Your task to perform on an android device: Go to Wikipedia Image 0: 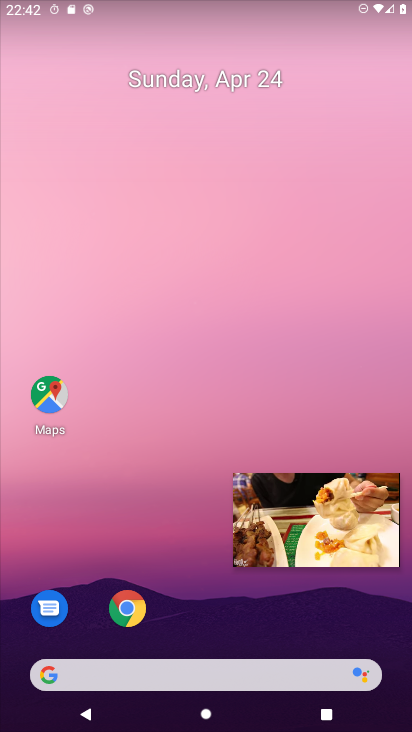
Step 0: press home button
Your task to perform on an android device: Go to Wikipedia Image 1: 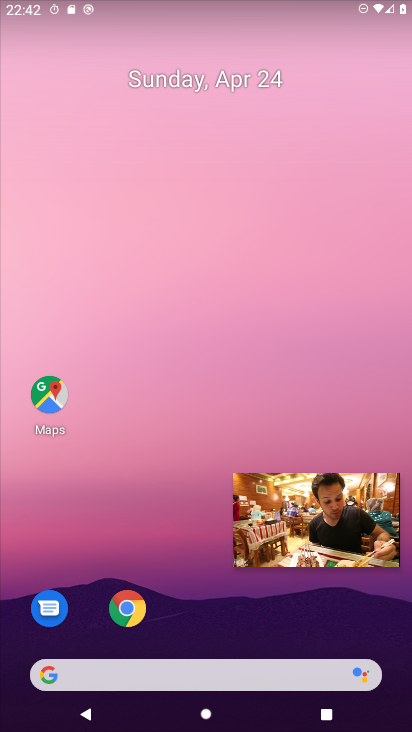
Step 1: click (137, 605)
Your task to perform on an android device: Go to Wikipedia Image 2: 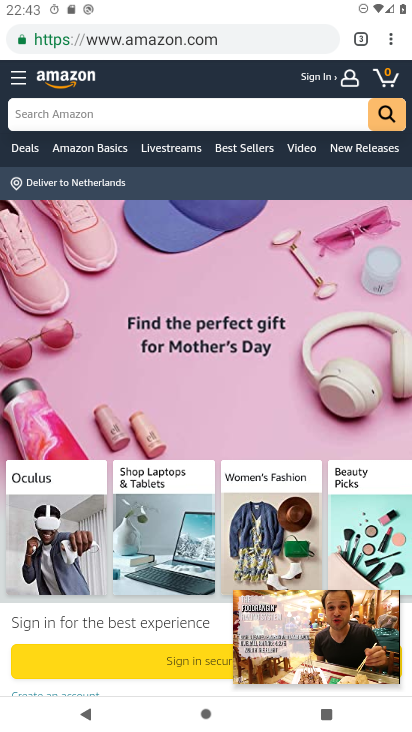
Step 2: click (389, 39)
Your task to perform on an android device: Go to Wikipedia Image 3: 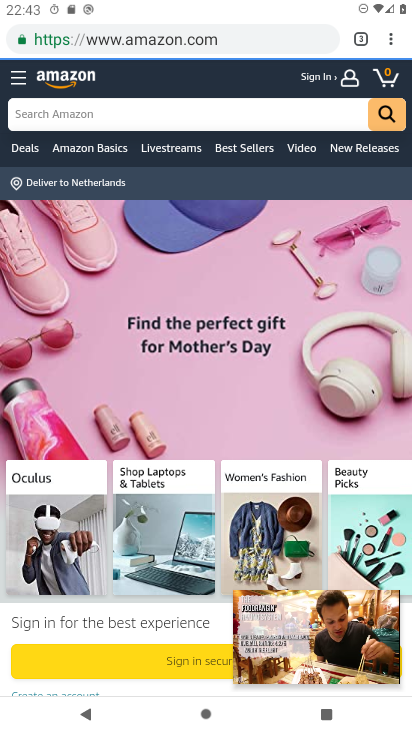
Step 3: click (389, 39)
Your task to perform on an android device: Go to Wikipedia Image 4: 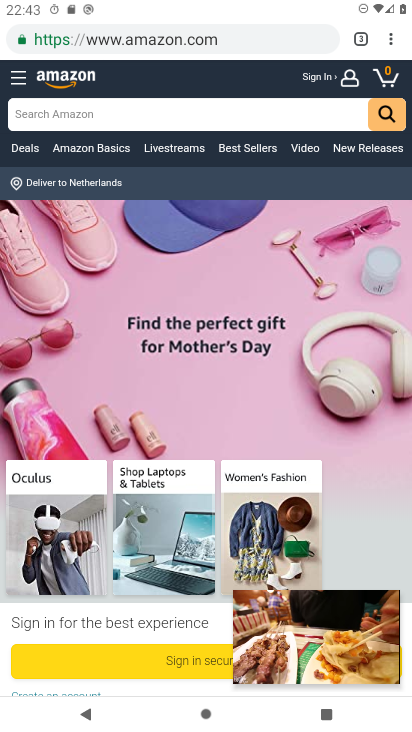
Step 4: click (389, 39)
Your task to perform on an android device: Go to Wikipedia Image 5: 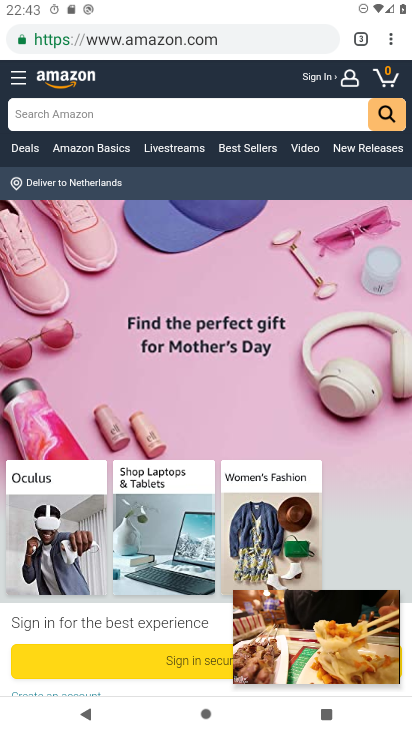
Step 5: drag from (389, 36) to (297, 139)
Your task to perform on an android device: Go to Wikipedia Image 6: 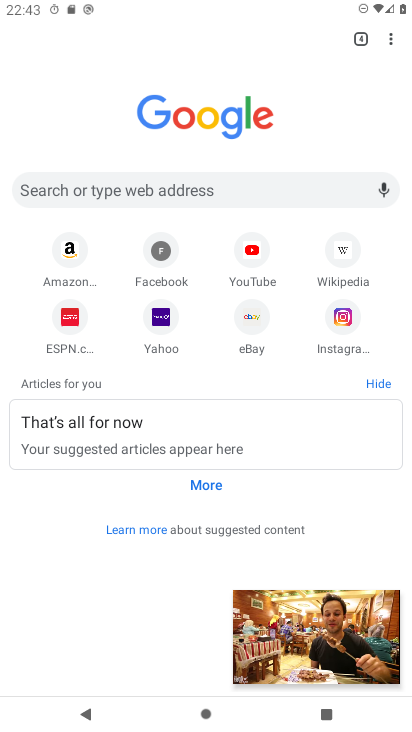
Step 6: click (339, 250)
Your task to perform on an android device: Go to Wikipedia Image 7: 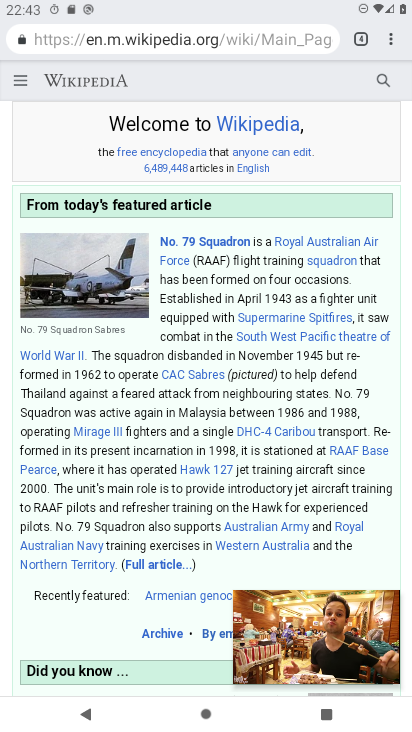
Step 7: task complete